Your task to perform on an android device: open chrome privacy settings Image 0: 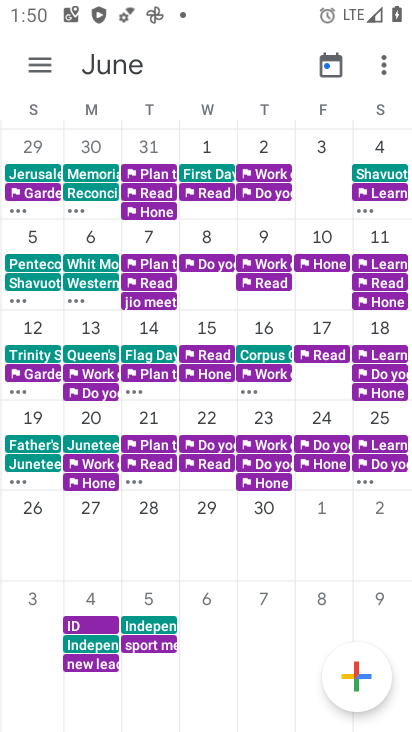
Step 0: press home button
Your task to perform on an android device: open chrome privacy settings Image 1: 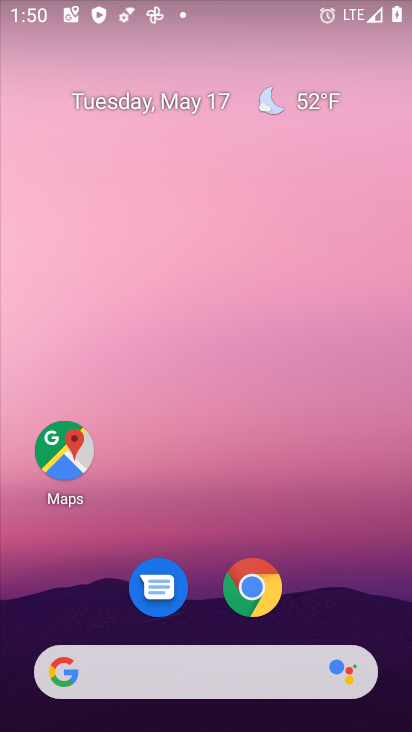
Step 1: drag from (401, 593) to (235, 31)
Your task to perform on an android device: open chrome privacy settings Image 2: 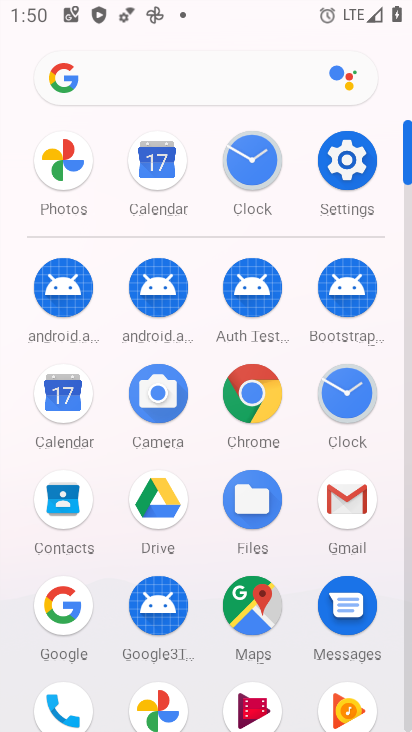
Step 2: click (362, 211)
Your task to perform on an android device: open chrome privacy settings Image 3: 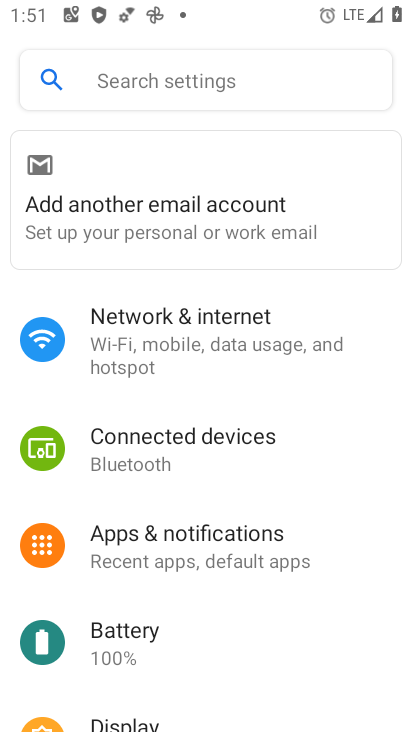
Step 3: drag from (152, 613) to (204, 288)
Your task to perform on an android device: open chrome privacy settings Image 4: 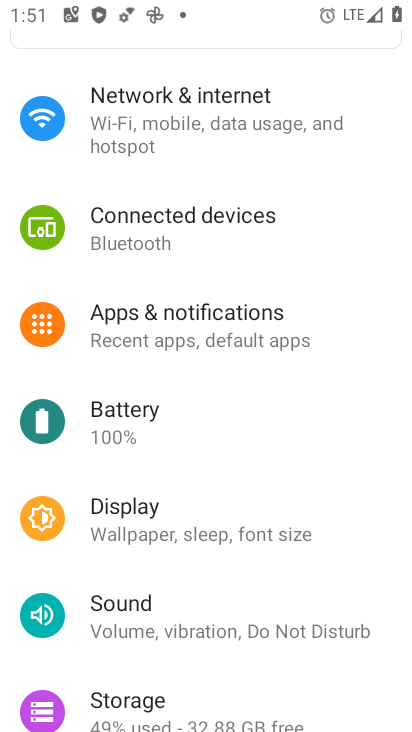
Step 4: press home button
Your task to perform on an android device: open chrome privacy settings Image 5: 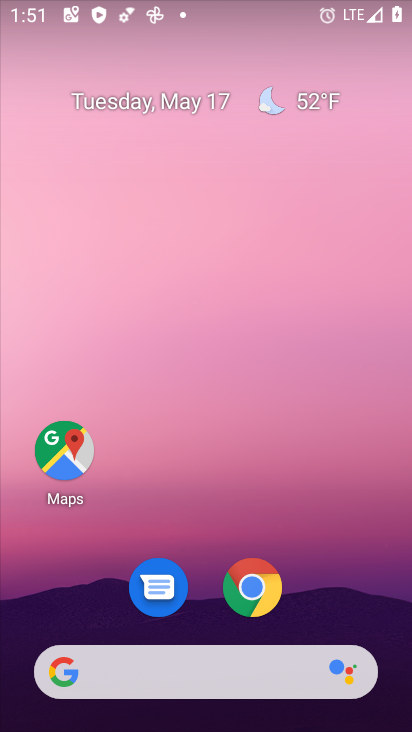
Step 5: drag from (348, 608) to (353, 331)
Your task to perform on an android device: open chrome privacy settings Image 6: 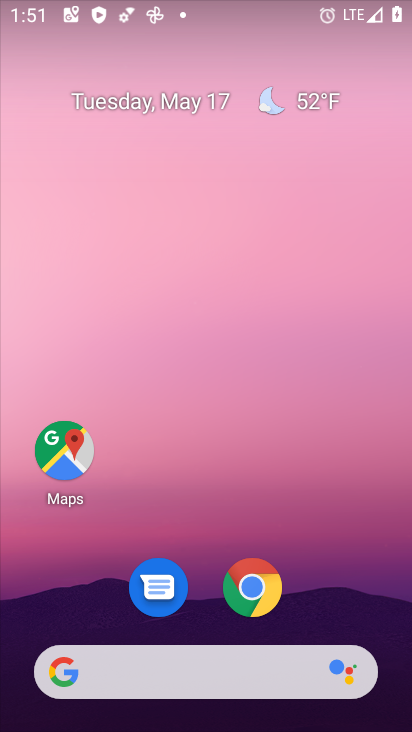
Step 6: click (256, 598)
Your task to perform on an android device: open chrome privacy settings Image 7: 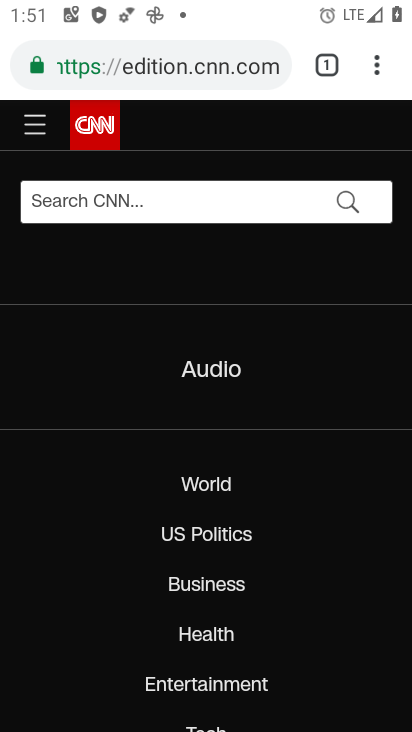
Step 7: click (374, 76)
Your task to perform on an android device: open chrome privacy settings Image 8: 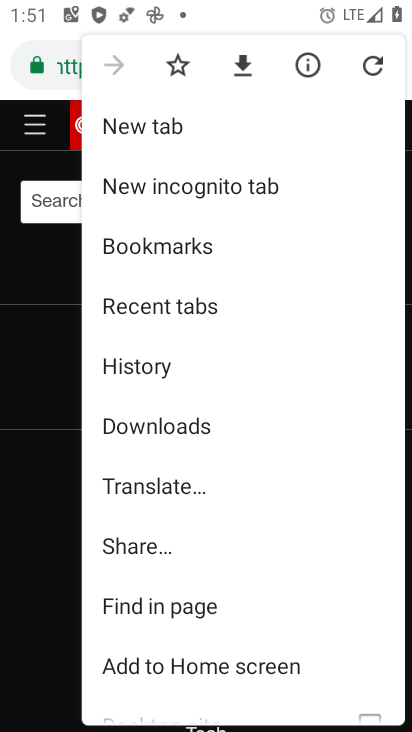
Step 8: drag from (229, 589) to (252, 388)
Your task to perform on an android device: open chrome privacy settings Image 9: 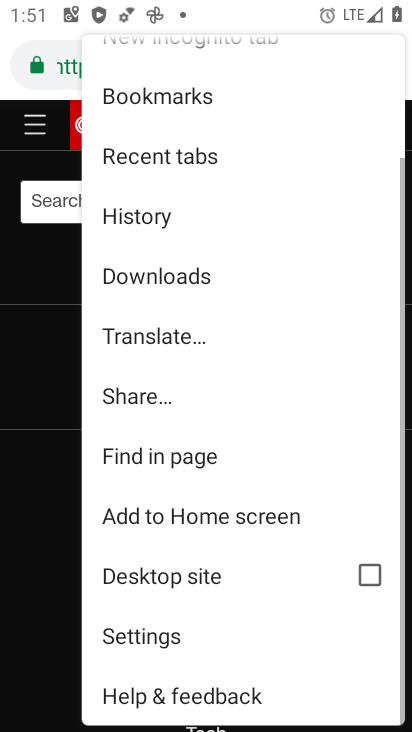
Step 9: click (212, 619)
Your task to perform on an android device: open chrome privacy settings Image 10: 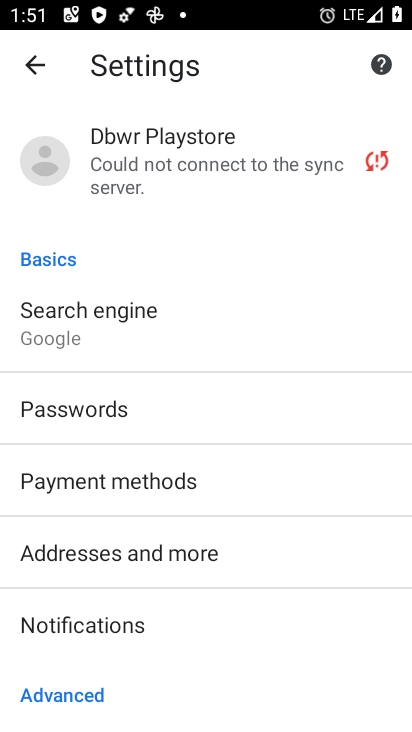
Step 10: drag from (181, 679) to (258, 277)
Your task to perform on an android device: open chrome privacy settings Image 11: 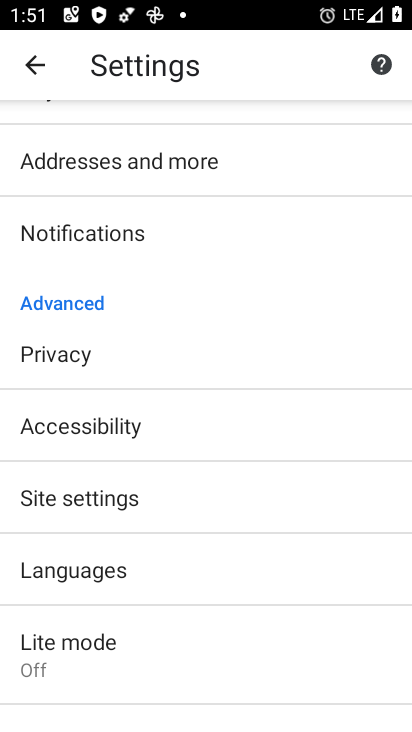
Step 11: click (215, 349)
Your task to perform on an android device: open chrome privacy settings Image 12: 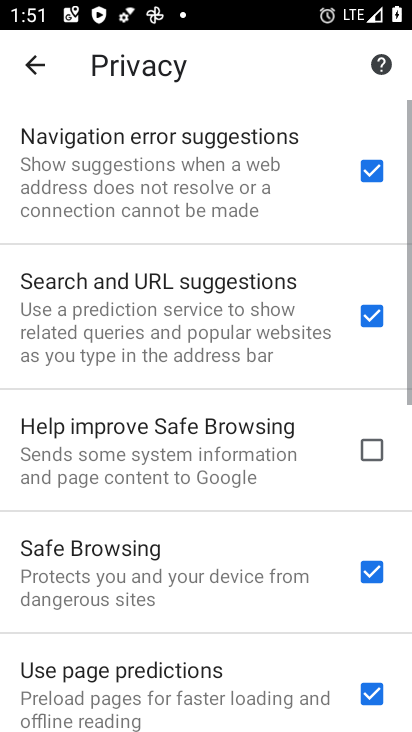
Step 12: task complete